Your task to perform on an android device: turn on airplane mode Image 0: 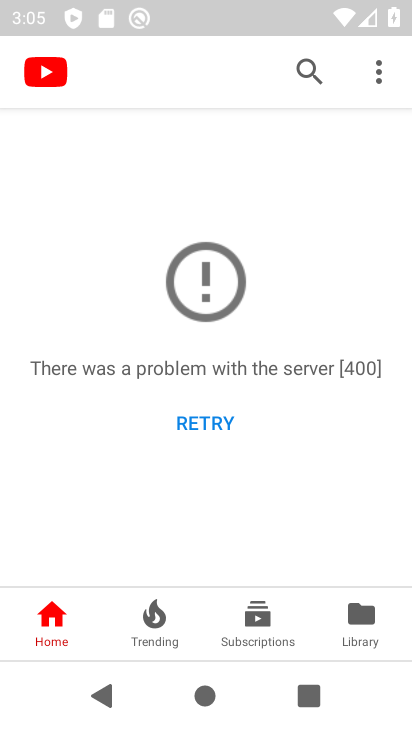
Step 0: press back button
Your task to perform on an android device: turn on airplane mode Image 1: 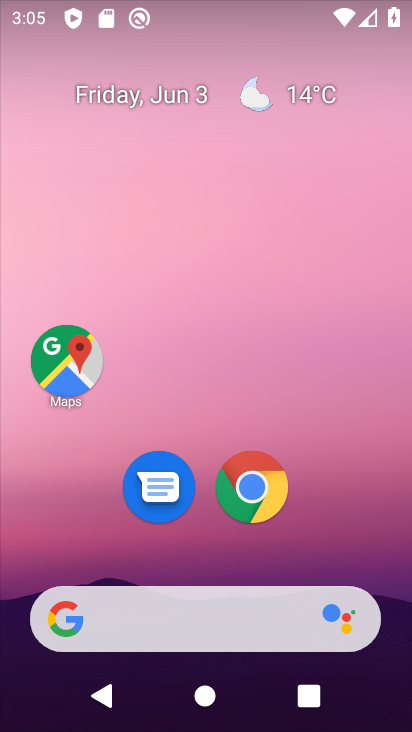
Step 1: drag from (341, 19) to (255, 572)
Your task to perform on an android device: turn on airplane mode Image 2: 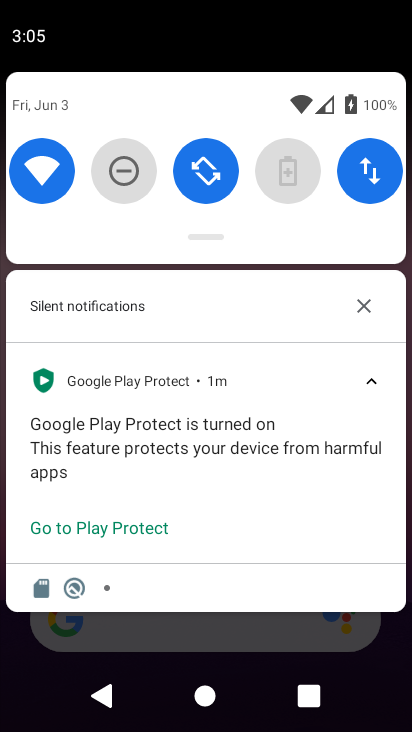
Step 2: drag from (187, 215) to (196, 546)
Your task to perform on an android device: turn on airplane mode Image 3: 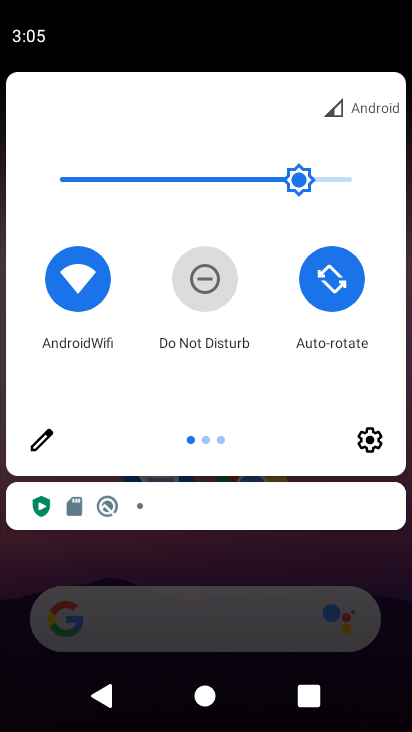
Step 3: drag from (334, 276) to (2, 283)
Your task to perform on an android device: turn on airplane mode Image 4: 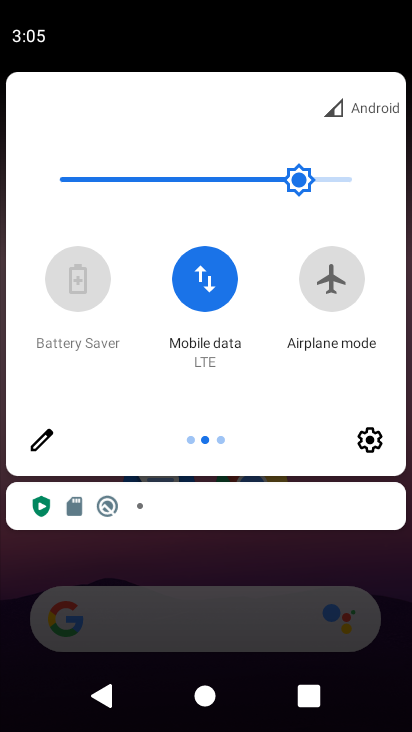
Step 4: click (319, 283)
Your task to perform on an android device: turn on airplane mode Image 5: 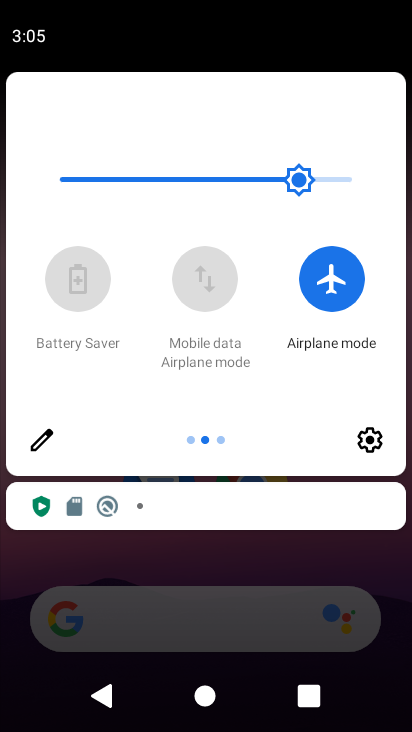
Step 5: task complete